Your task to perform on an android device: Go to CNN.com Image 0: 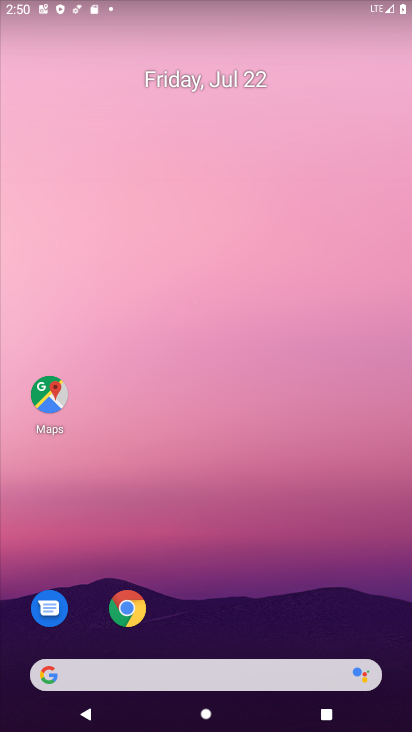
Step 0: click (143, 618)
Your task to perform on an android device: Go to CNN.com Image 1: 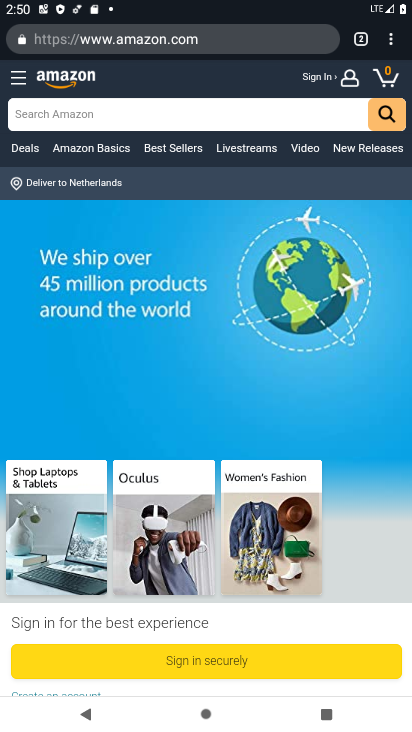
Step 1: click (292, 51)
Your task to perform on an android device: Go to CNN.com Image 2: 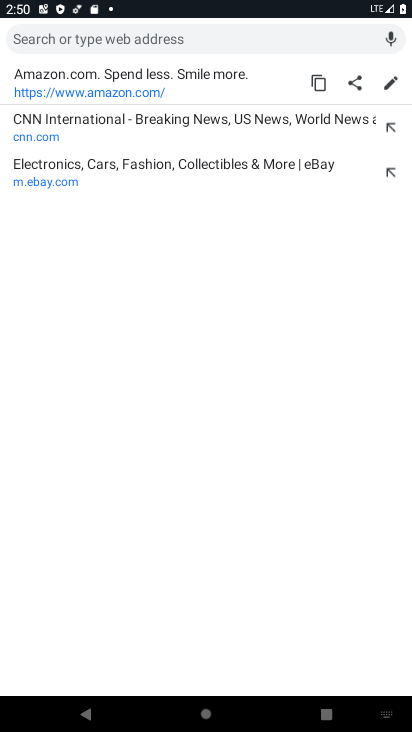
Step 2: click (69, 113)
Your task to perform on an android device: Go to CNN.com Image 3: 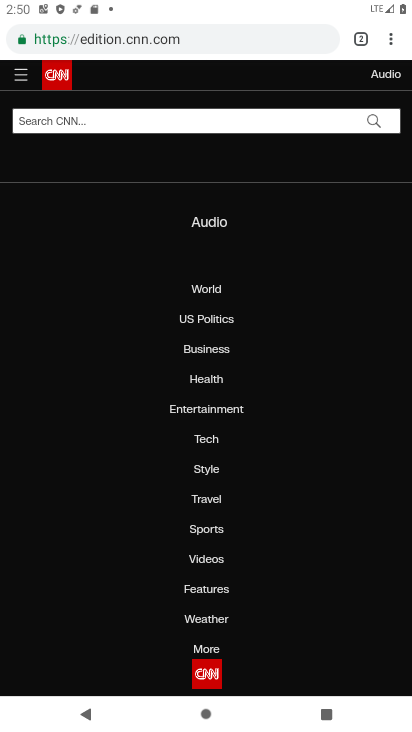
Step 3: task complete